Your task to perform on an android device: Go to Google Image 0: 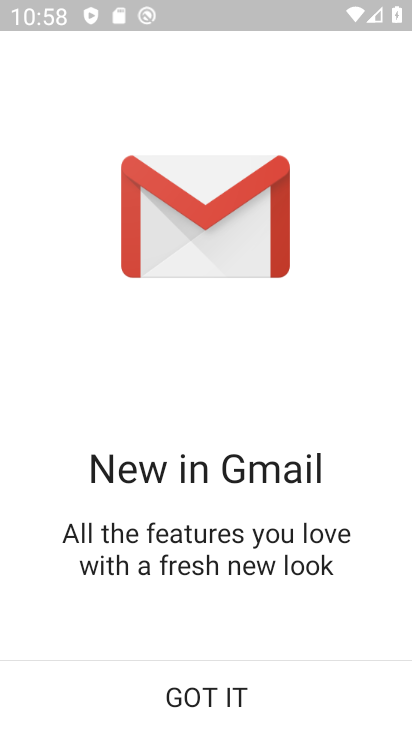
Step 0: press home button
Your task to perform on an android device: Go to Google Image 1: 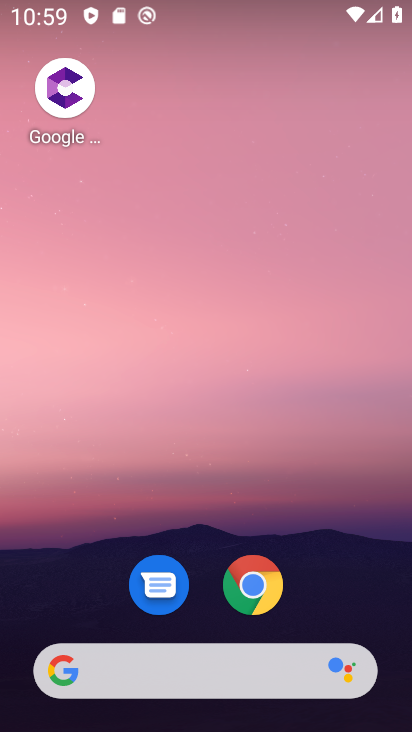
Step 1: drag from (207, 658) to (186, 118)
Your task to perform on an android device: Go to Google Image 2: 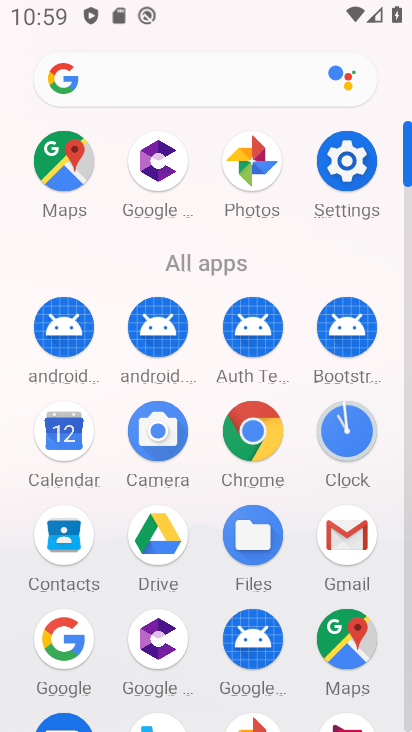
Step 2: click (70, 657)
Your task to perform on an android device: Go to Google Image 3: 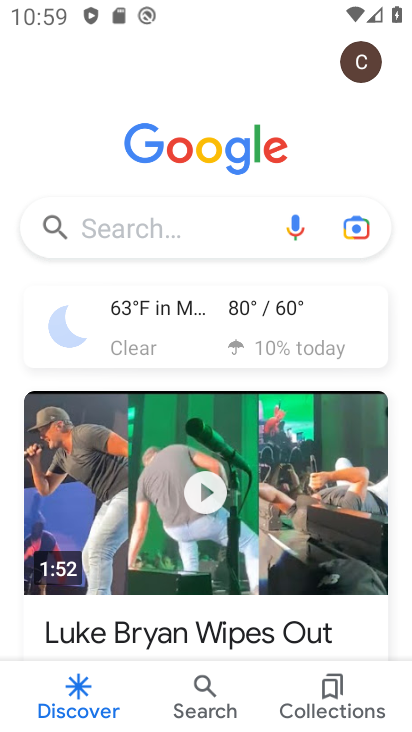
Step 3: task complete